Your task to perform on an android device: open app "Venmo" (install if not already installed) Image 0: 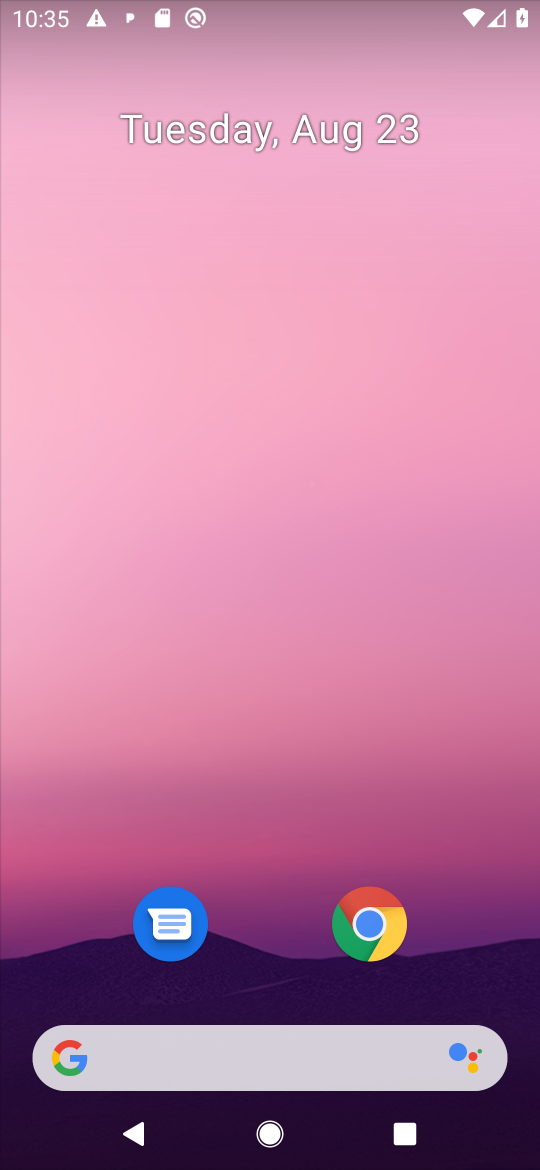
Step 0: press home button
Your task to perform on an android device: open app "Venmo" (install if not already installed) Image 1: 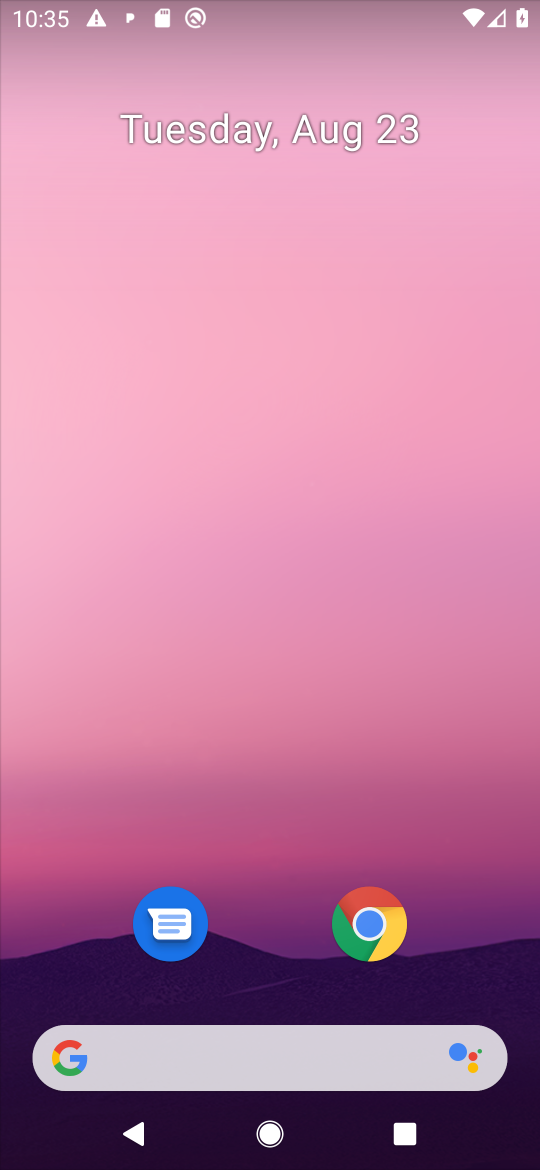
Step 1: drag from (465, 927) to (517, 220)
Your task to perform on an android device: open app "Venmo" (install if not already installed) Image 2: 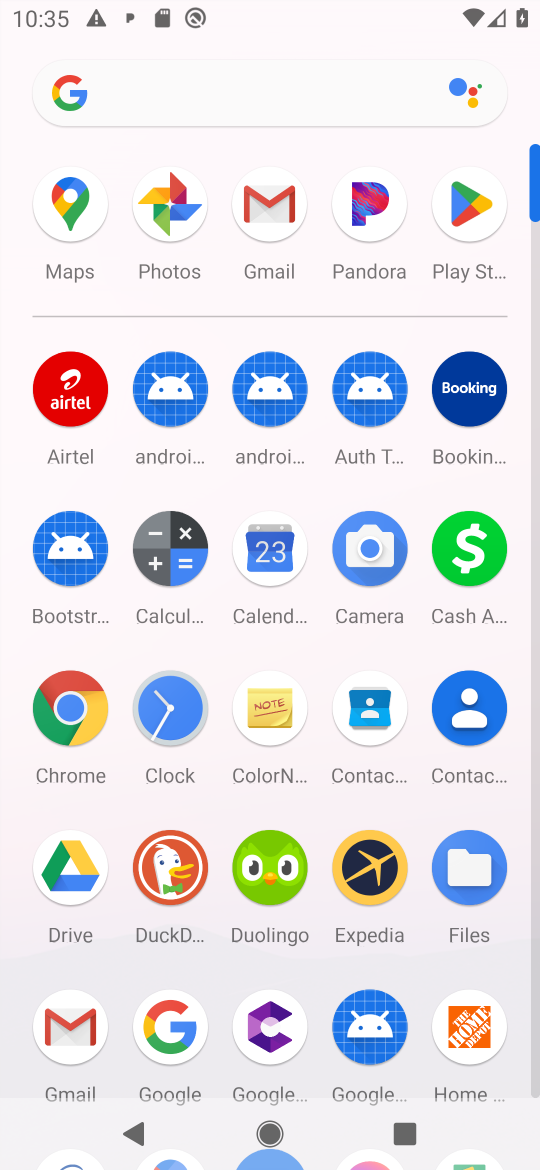
Step 2: click (465, 205)
Your task to perform on an android device: open app "Venmo" (install if not already installed) Image 3: 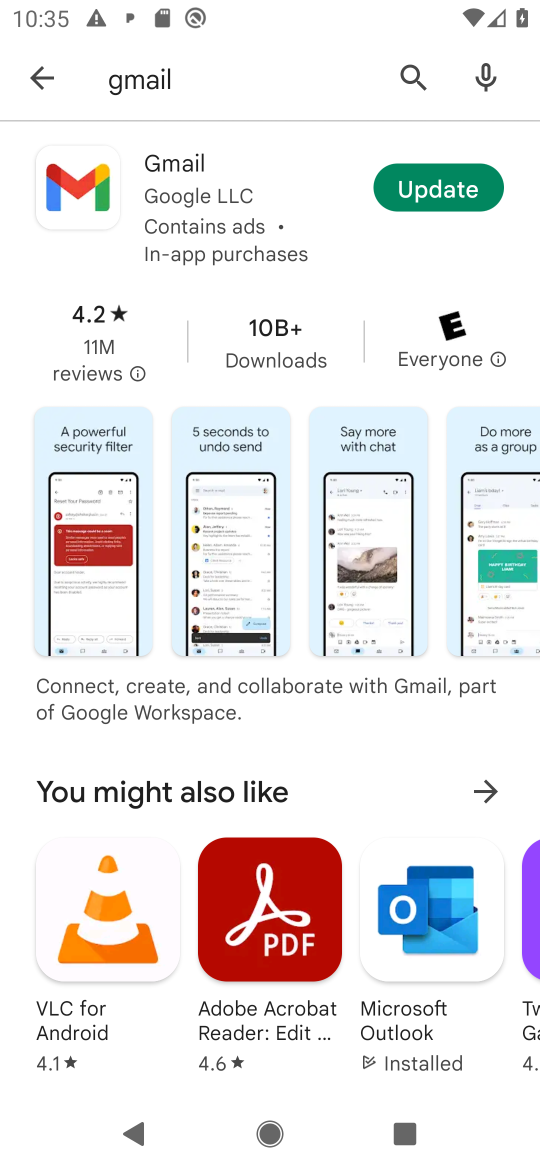
Step 3: press back button
Your task to perform on an android device: open app "Venmo" (install if not already installed) Image 4: 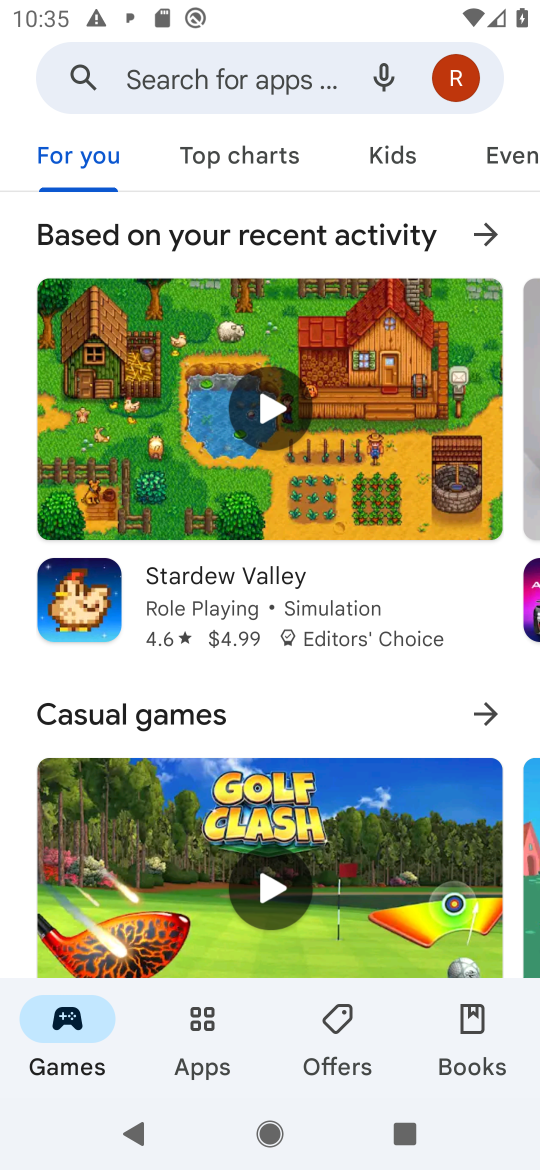
Step 4: click (285, 82)
Your task to perform on an android device: open app "Venmo" (install if not already installed) Image 5: 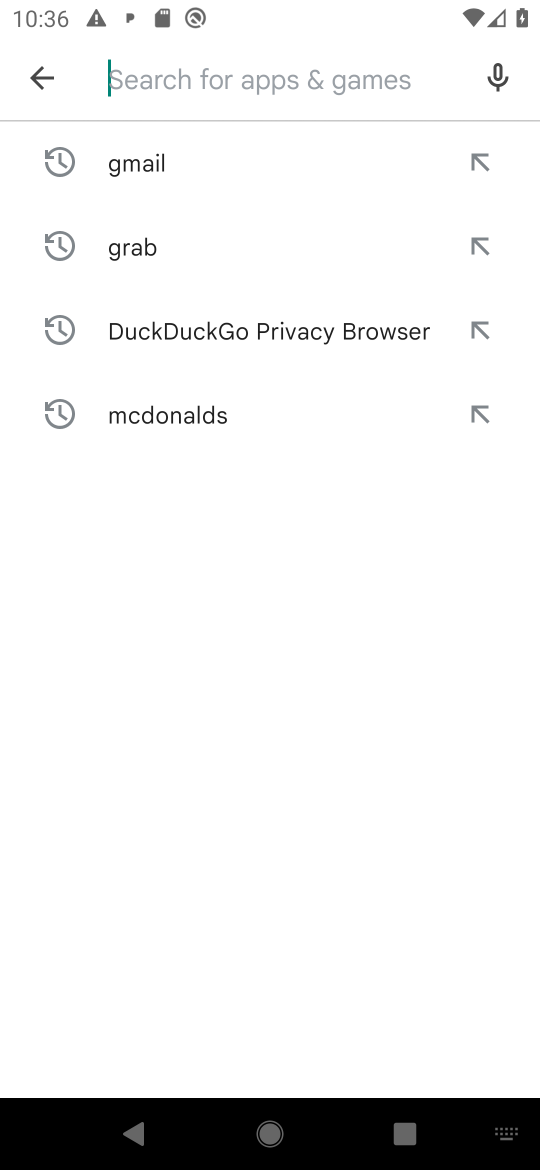
Step 5: press enter
Your task to perform on an android device: open app "Venmo" (install if not already installed) Image 6: 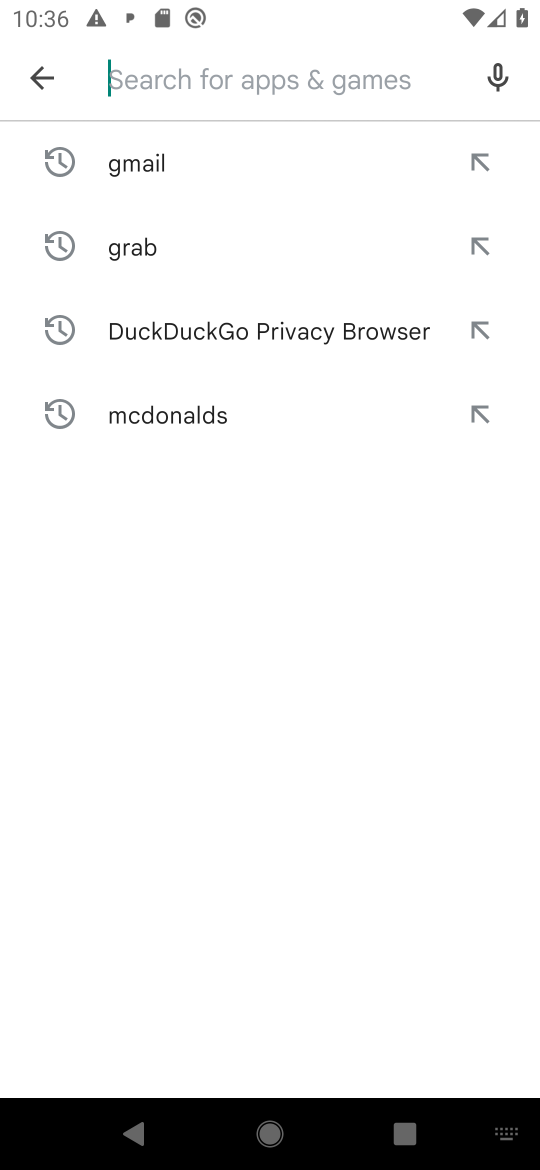
Step 6: type "venmo"
Your task to perform on an android device: open app "Venmo" (install if not already installed) Image 7: 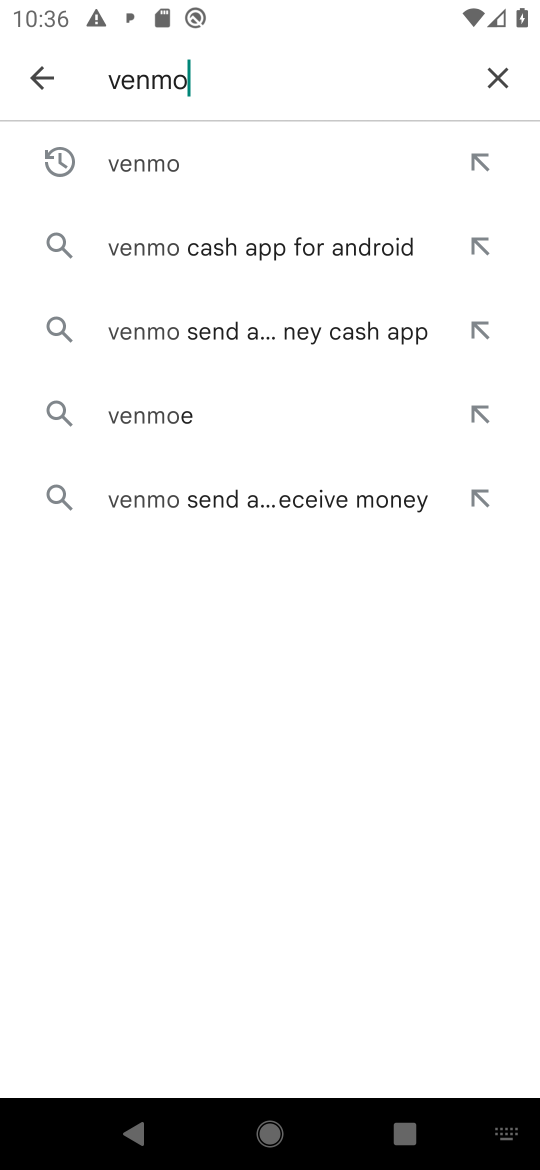
Step 7: click (277, 166)
Your task to perform on an android device: open app "Venmo" (install if not already installed) Image 8: 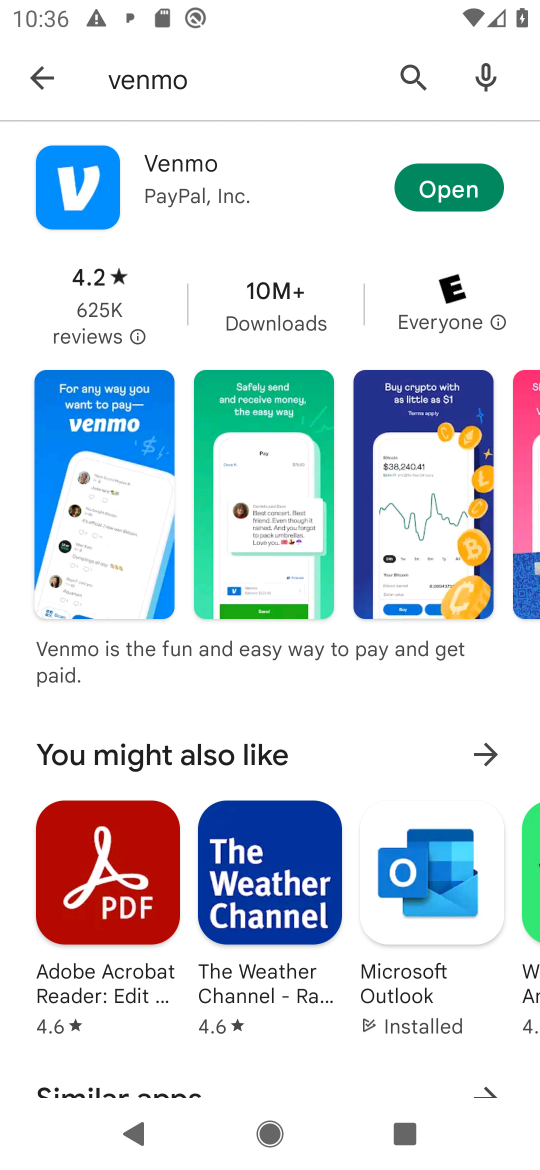
Step 8: click (452, 191)
Your task to perform on an android device: open app "Venmo" (install if not already installed) Image 9: 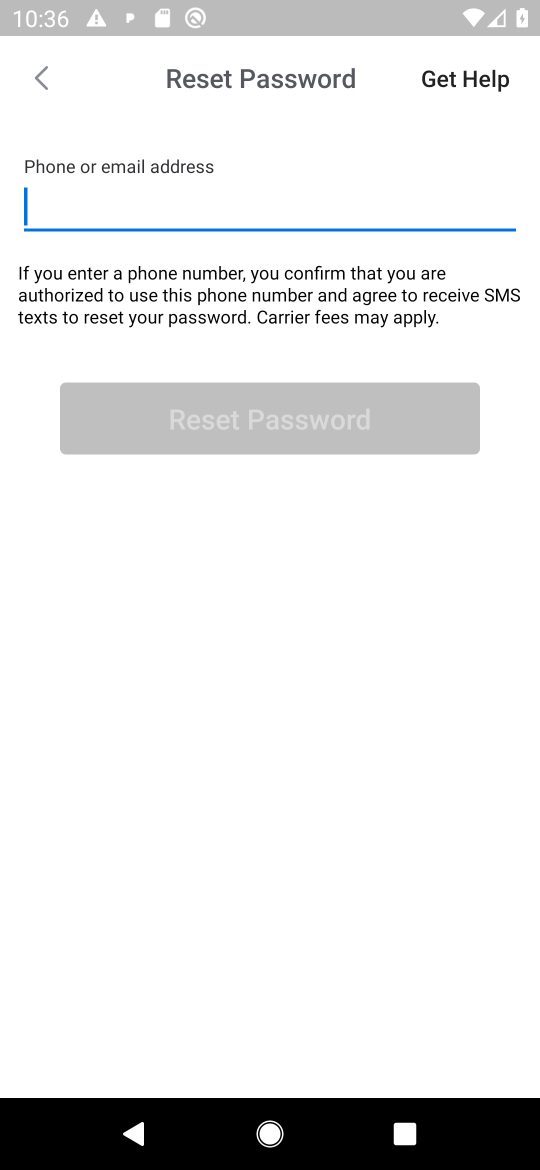
Step 9: task complete